Your task to perform on an android device: Go to Android settings Image 0: 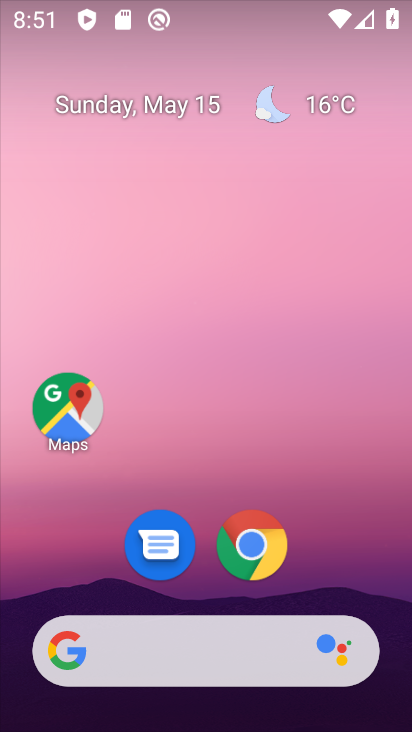
Step 0: drag from (327, 577) to (307, 87)
Your task to perform on an android device: Go to Android settings Image 1: 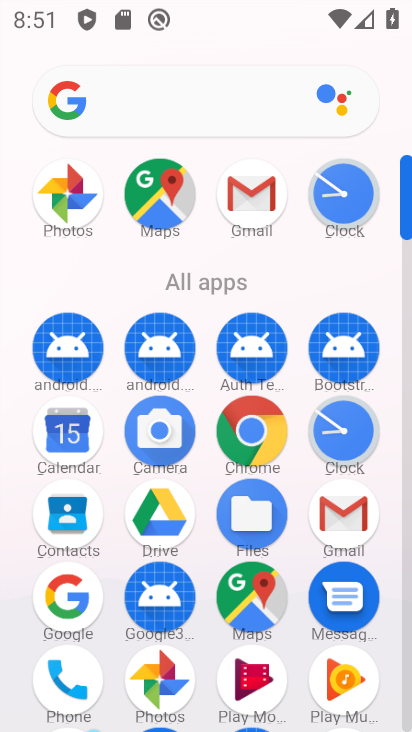
Step 1: drag from (116, 611) to (131, 304)
Your task to perform on an android device: Go to Android settings Image 2: 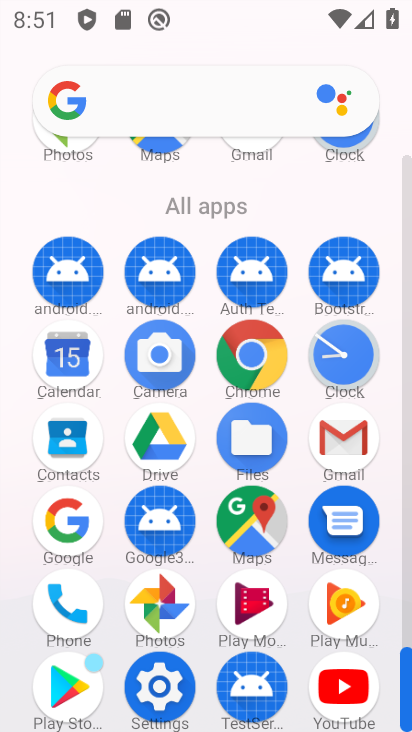
Step 2: click (161, 684)
Your task to perform on an android device: Go to Android settings Image 3: 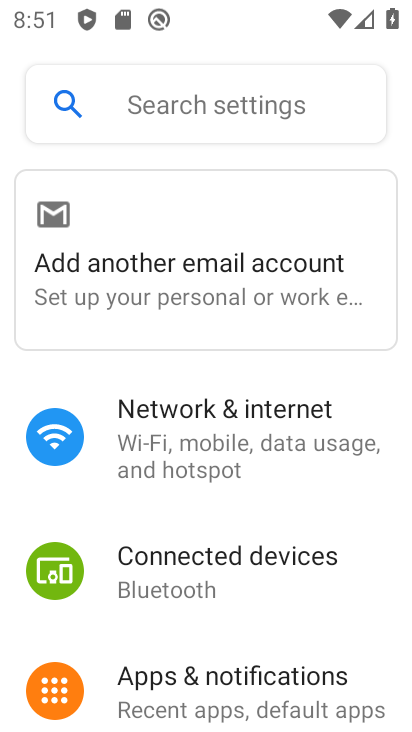
Step 3: task complete